Your task to perform on an android device: check the backup settings in the google photos Image 0: 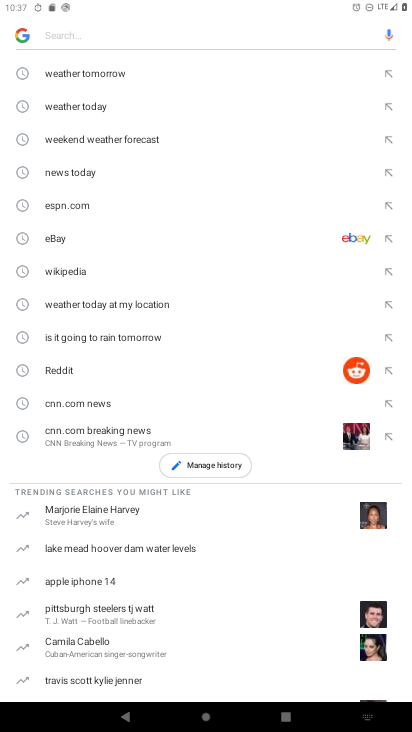
Step 0: press home button
Your task to perform on an android device: check the backup settings in the google photos Image 1: 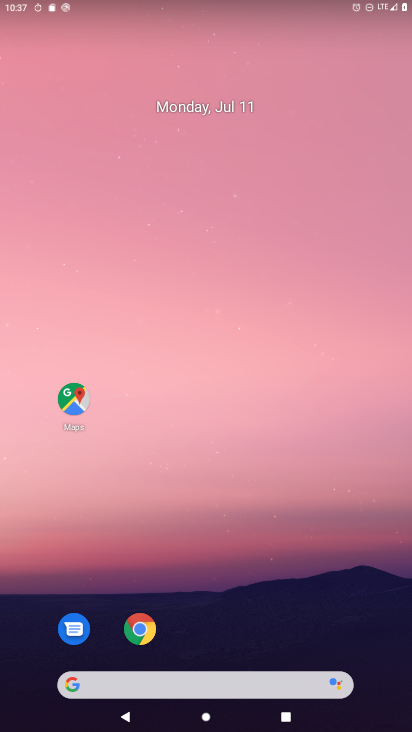
Step 1: drag from (187, 619) to (192, 62)
Your task to perform on an android device: check the backup settings in the google photos Image 2: 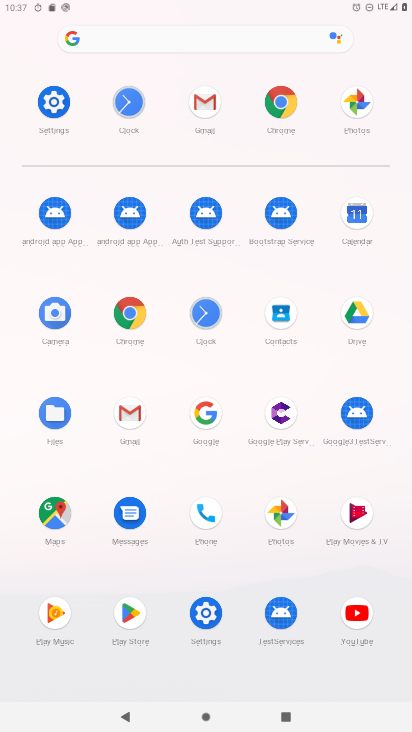
Step 2: click (363, 101)
Your task to perform on an android device: check the backup settings in the google photos Image 3: 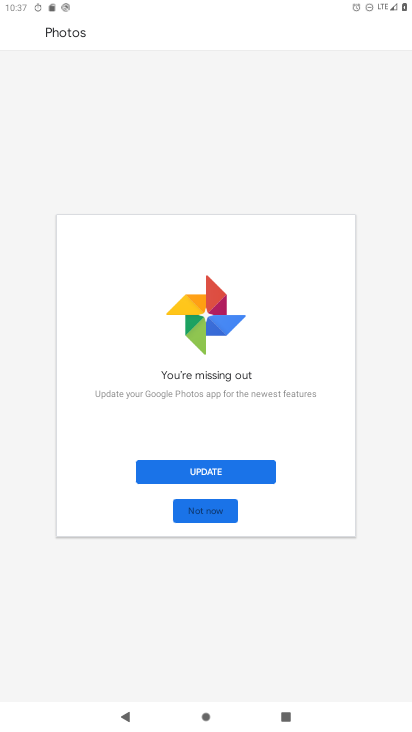
Step 3: click (216, 513)
Your task to perform on an android device: check the backup settings in the google photos Image 4: 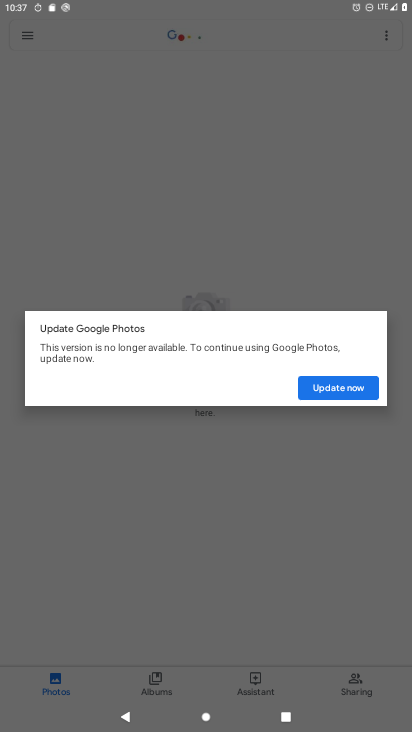
Step 4: click (362, 385)
Your task to perform on an android device: check the backup settings in the google photos Image 5: 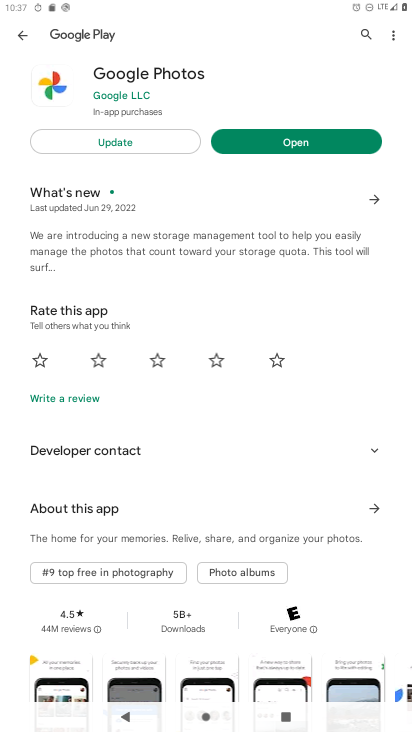
Step 5: click (271, 148)
Your task to perform on an android device: check the backup settings in the google photos Image 6: 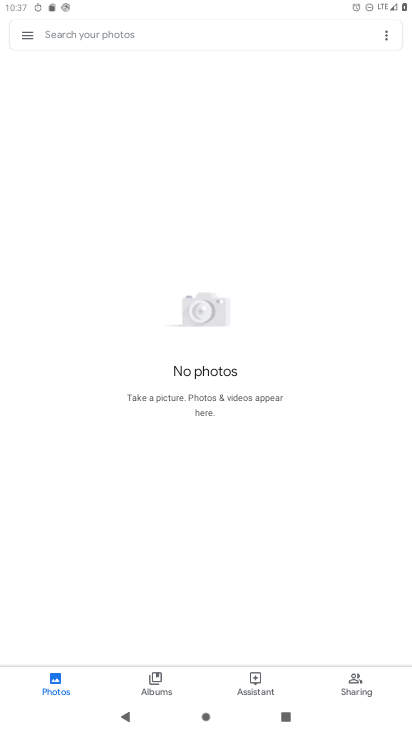
Step 6: click (32, 36)
Your task to perform on an android device: check the backup settings in the google photos Image 7: 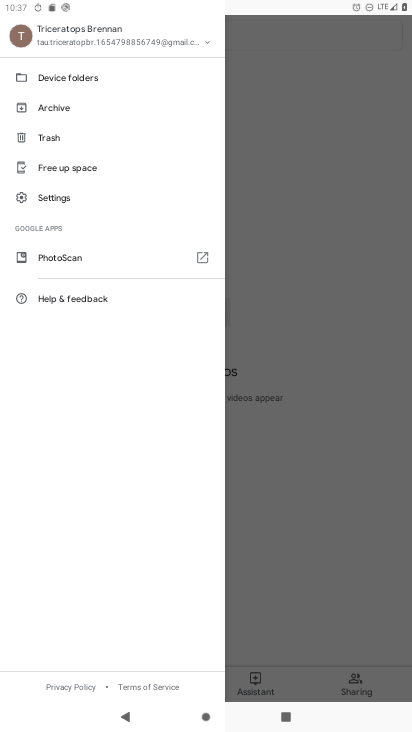
Step 7: click (76, 207)
Your task to perform on an android device: check the backup settings in the google photos Image 8: 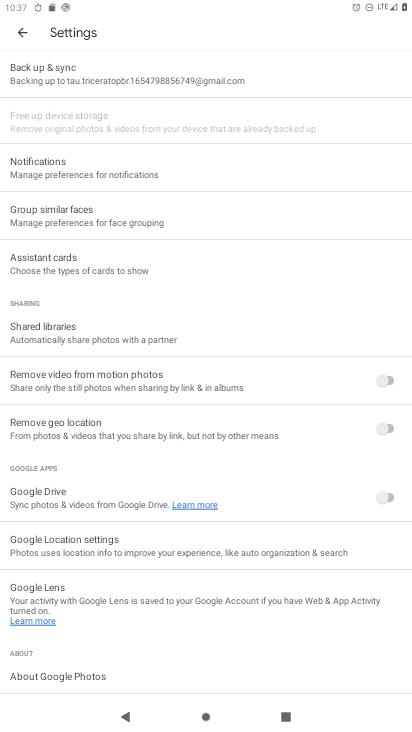
Step 8: click (137, 76)
Your task to perform on an android device: check the backup settings in the google photos Image 9: 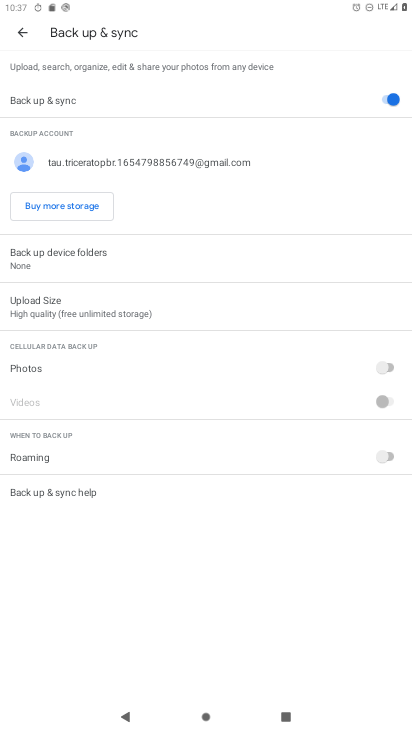
Step 9: task complete